Your task to perform on an android device: What's the weather? Image 0: 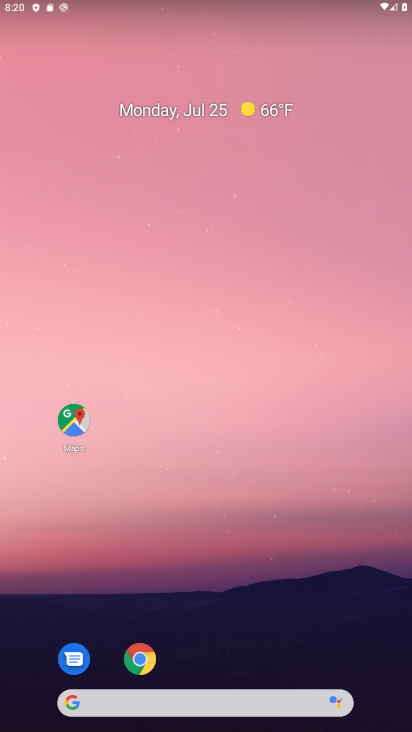
Step 0: drag from (11, 138) to (380, 163)
Your task to perform on an android device: What's the weather? Image 1: 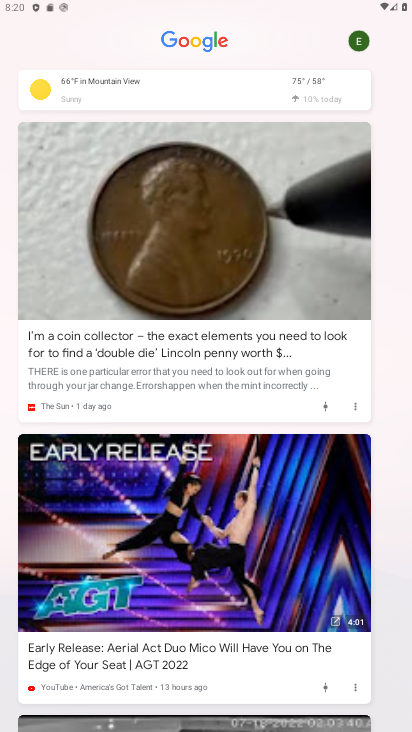
Step 1: click (73, 94)
Your task to perform on an android device: What's the weather? Image 2: 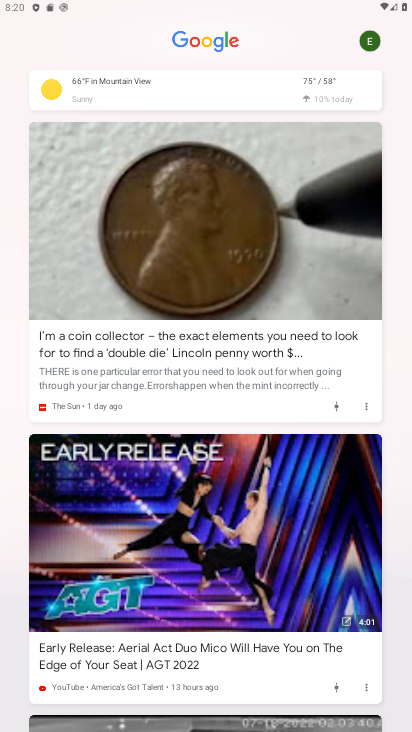
Step 2: click (73, 94)
Your task to perform on an android device: What's the weather? Image 3: 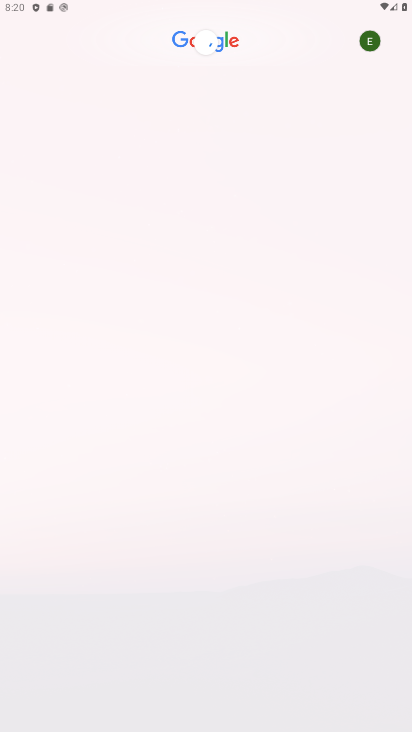
Step 3: click (94, 81)
Your task to perform on an android device: What's the weather? Image 4: 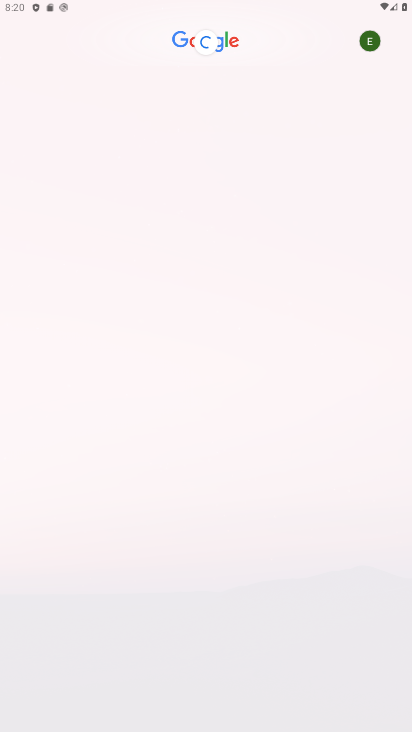
Step 4: click (94, 81)
Your task to perform on an android device: What's the weather? Image 5: 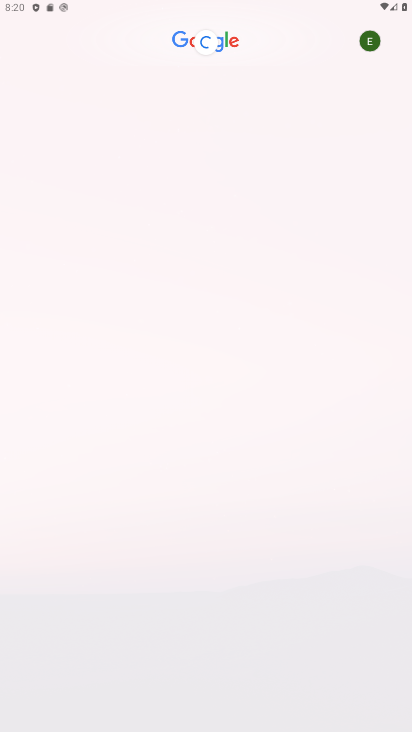
Step 5: click (102, 80)
Your task to perform on an android device: What's the weather? Image 6: 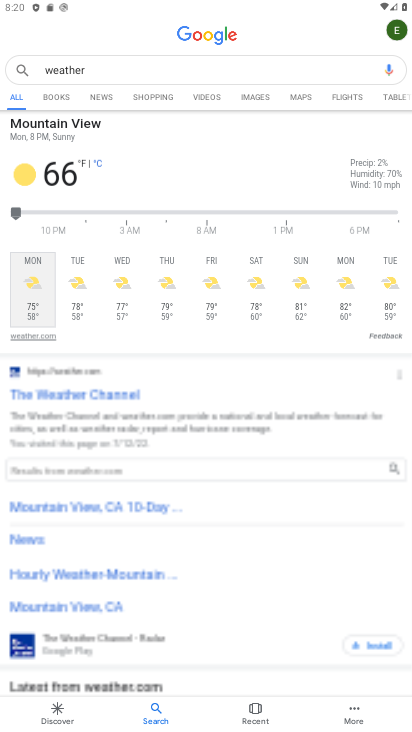
Step 6: task complete